Your task to perform on an android device: Open calendar and show me the second week of next month Image 0: 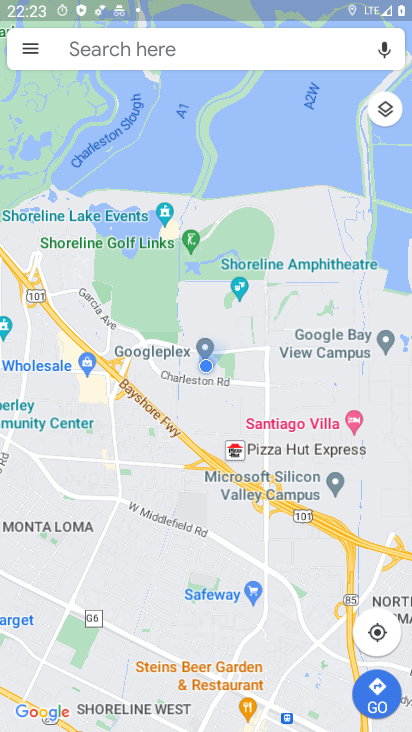
Step 0: press back button
Your task to perform on an android device: Open calendar and show me the second week of next month Image 1: 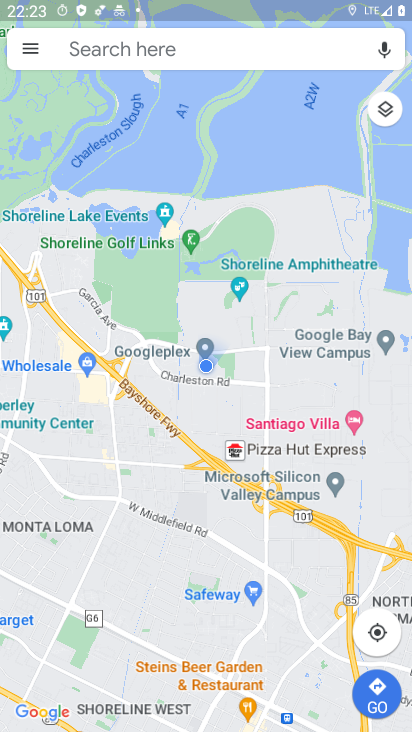
Step 1: press back button
Your task to perform on an android device: Open calendar and show me the second week of next month Image 2: 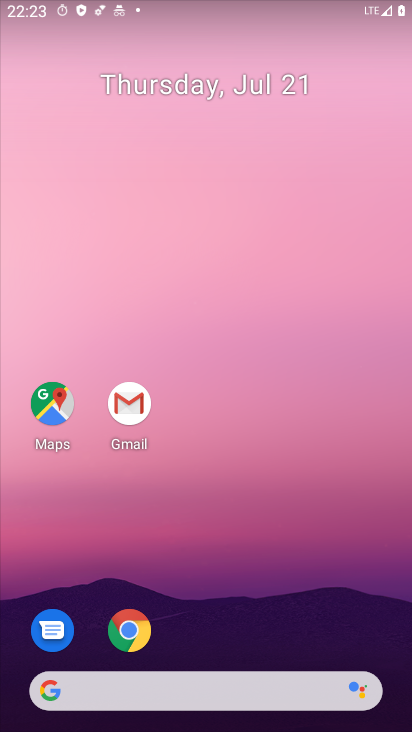
Step 2: click (201, 197)
Your task to perform on an android device: Open calendar and show me the second week of next month Image 3: 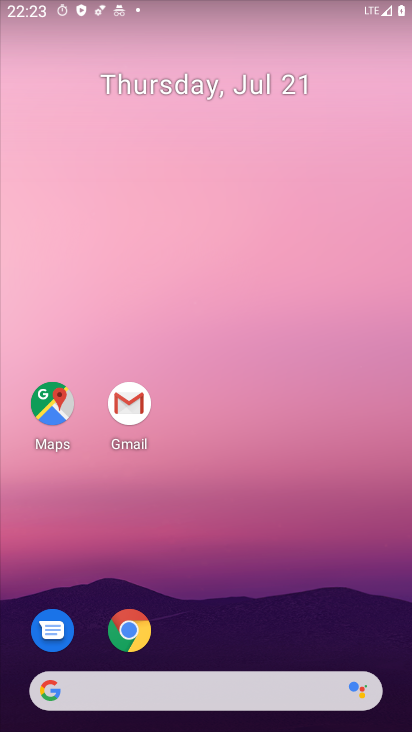
Step 3: drag from (247, 600) to (185, 182)
Your task to perform on an android device: Open calendar and show me the second week of next month Image 4: 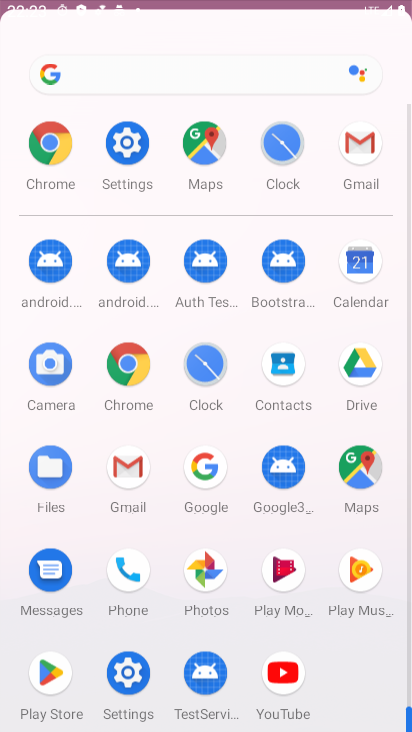
Step 4: drag from (230, 592) to (222, 172)
Your task to perform on an android device: Open calendar and show me the second week of next month Image 5: 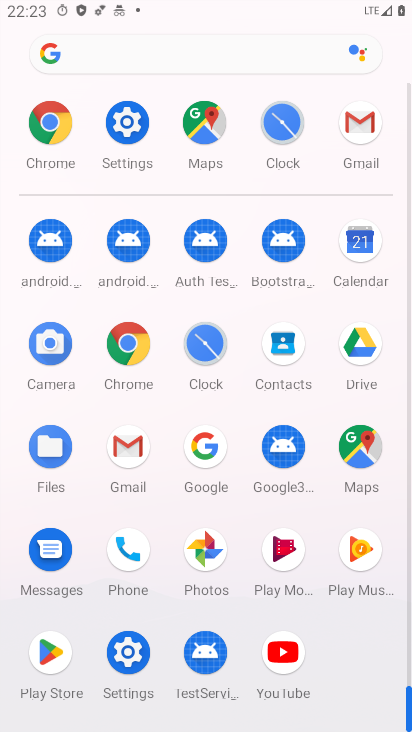
Step 5: click (361, 241)
Your task to perform on an android device: Open calendar and show me the second week of next month Image 6: 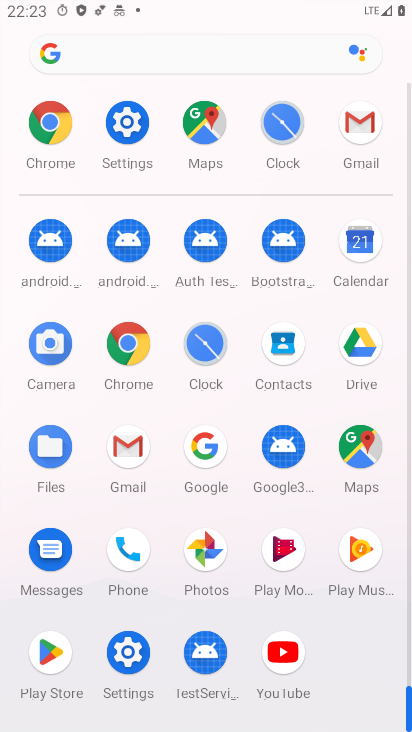
Step 6: click (361, 241)
Your task to perform on an android device: Open calendar and show me the second week of next month Image 7: 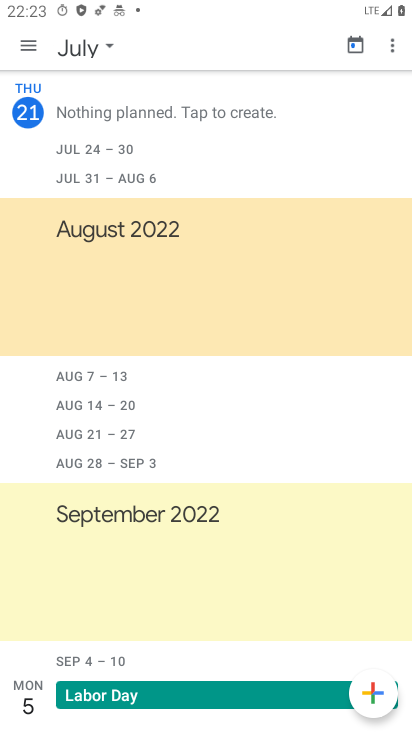
Step 7: click (102, 44)
Your task to perform on an android device: Open calendar and show me the second week of next month Image 8: 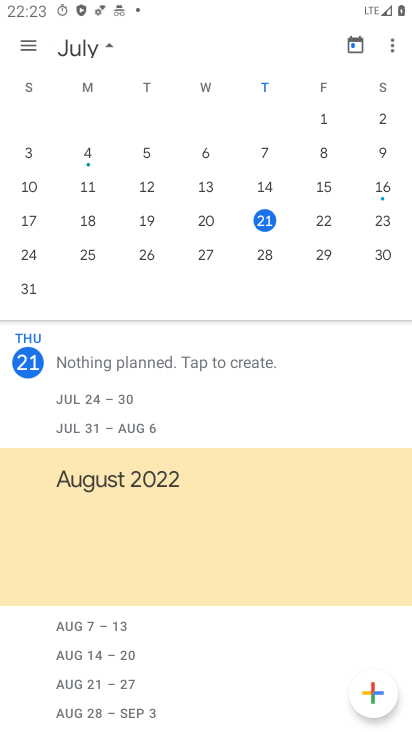
Step 8: drag from (355, 161) to (23, 230)
Your task to perform on an android device: Open calendar and show me the second week of next month Image 9: 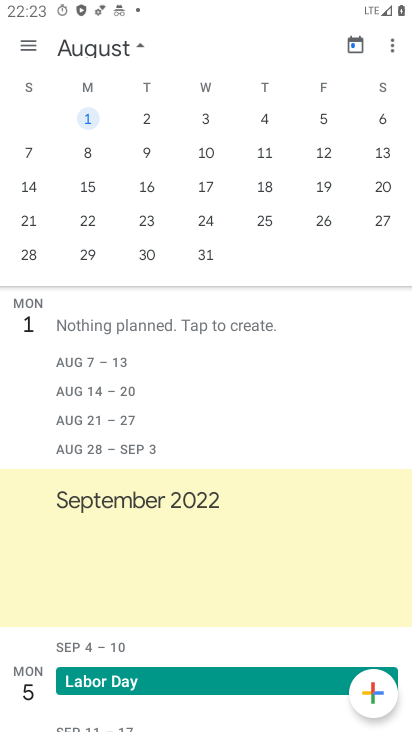
Step 9: click (145, 156)
Your task to perform on an android device: Open calendar and show me the second week of next month Image 10: 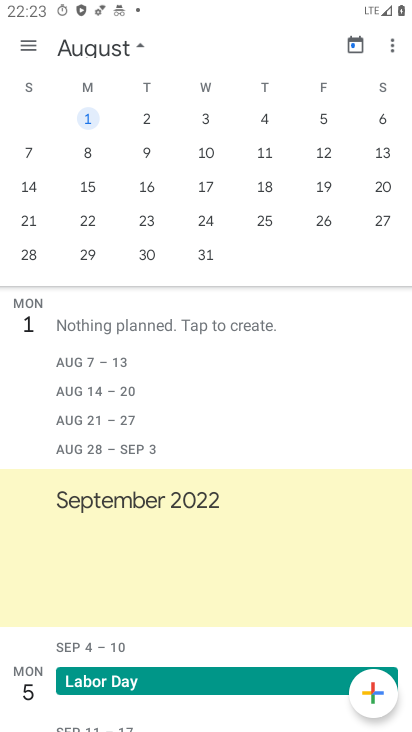
Step 10: click (142, 153)
Your task to perform on an android device: Open calendar and show me the second week of next month Image 11: 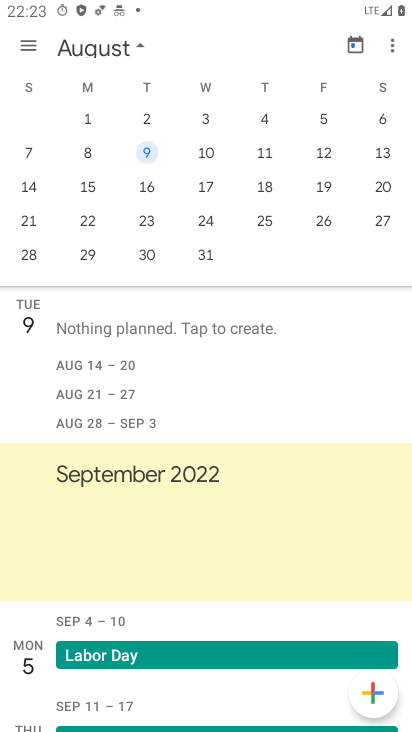
Step 11: click (142, 153)
Your task to perform on an android device: Open calendar and show me the second week of next month Image 12: 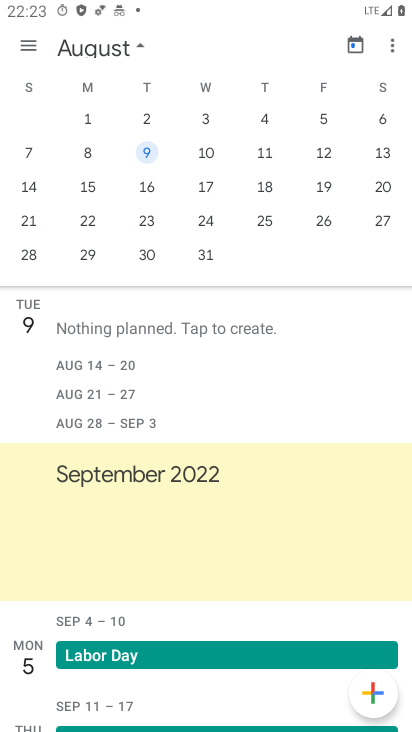
Step 12: task complete